Your task to perform on an android device: turn on data saver in the chrome app Image 0: 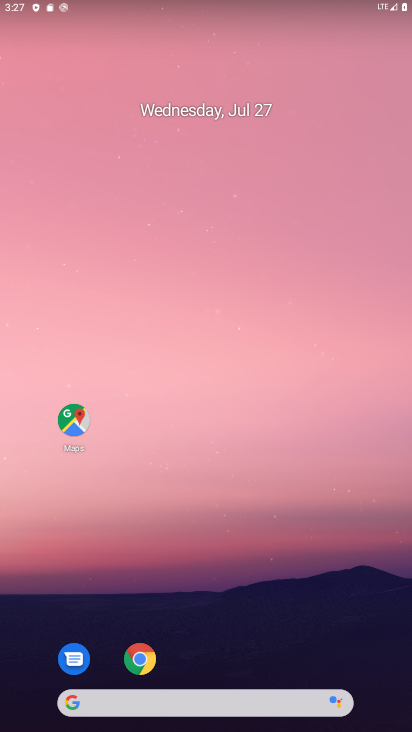
Step 0: click (146, 655)
Your task to perform on an android device: turn on data saver in the chrome app Image 1: 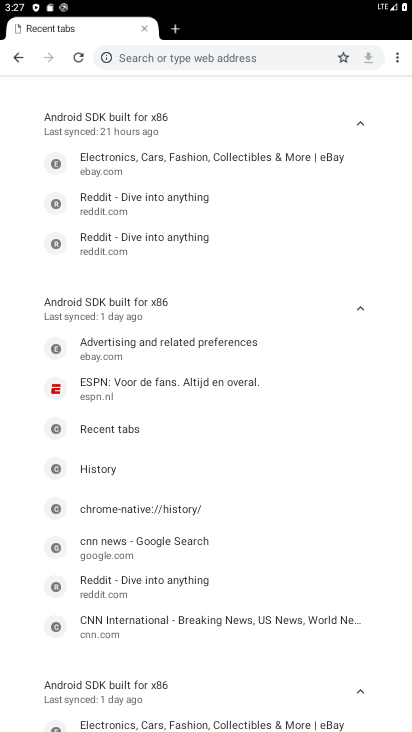
Step 1: drag from (394, 55) to (292, 271)
Your task to perform on an android device: turn on data saver in the chrome app Image 2: 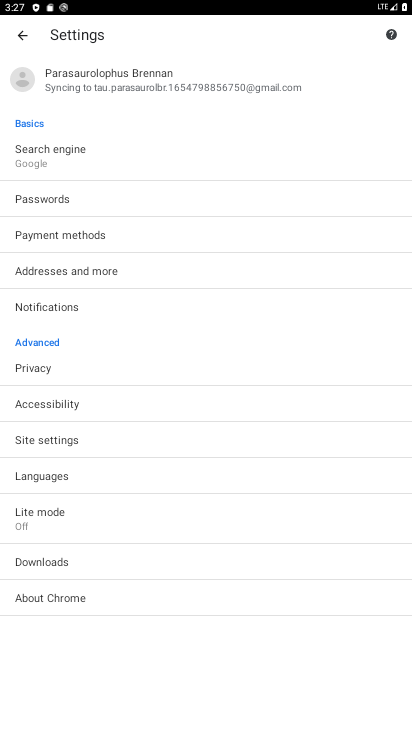
Step 2: click (62, 514)
Your task to perform on an android device: turn on data saver in the chrome app Image 3: 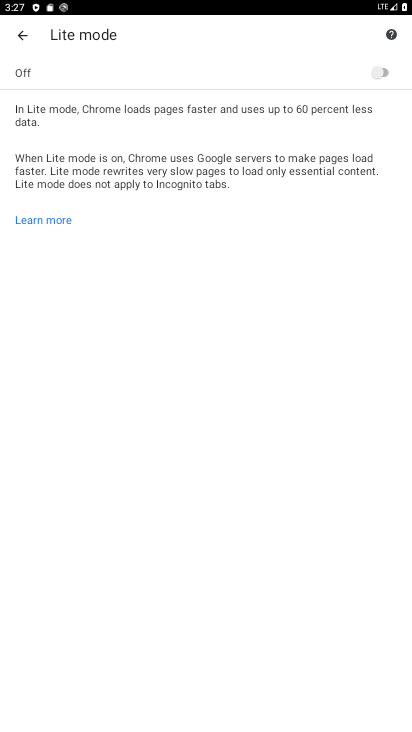
Step 3: click (372, 71)
Your task to perform on an android device: turn on data saver in the chrome app Image 4: 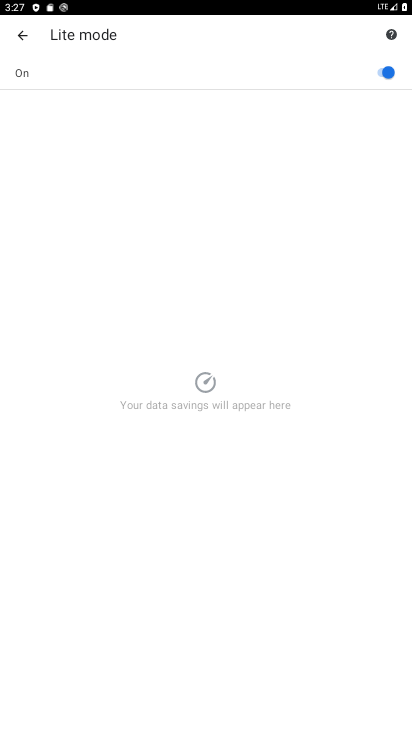
Step 4: task complete